Your task to perform on an android device: change text size in settings app Image 0: 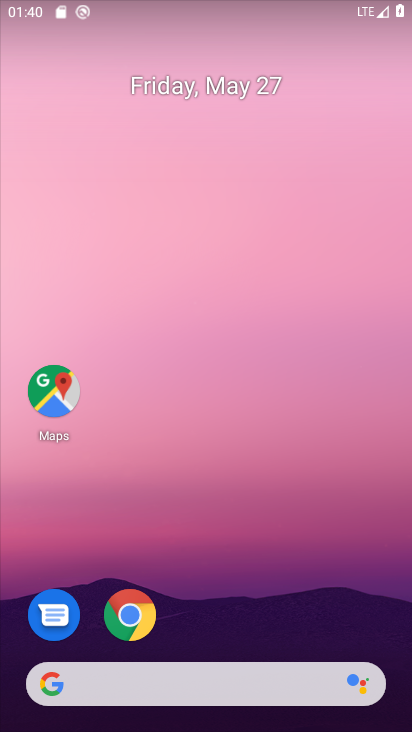
Step 0: drag from (368, 624) to (378, 213)
Your task to perform on an android device: change text size in settings app Image 1: 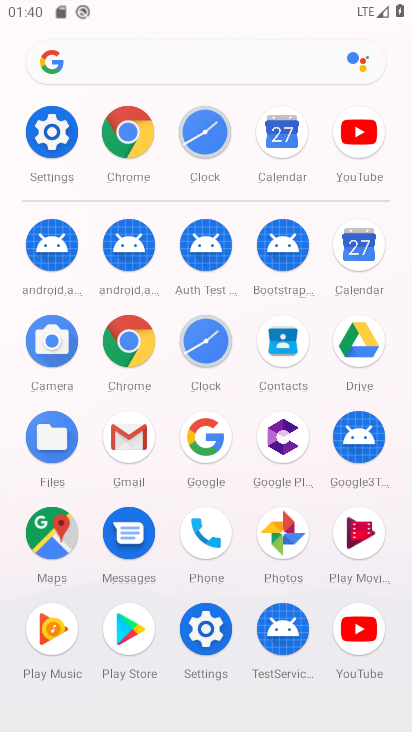
Step 1: click (213, 641)
Your task to perform on an android device: change text size in settings app Image 2: 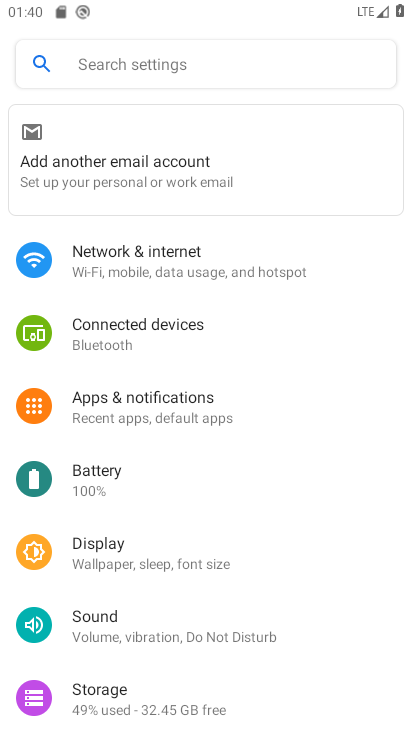
Step 2: drag from (338, 349) to (342, 476)
Your task to perform on an android device: change text size in settings app Image 3: 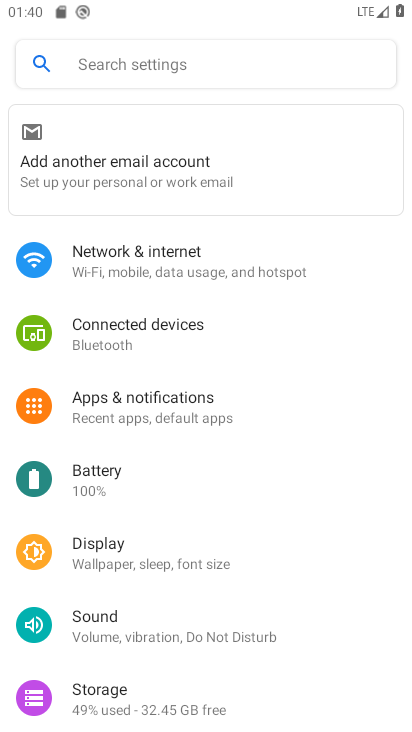
Step 3: drag from (348, 553) to (362, 437)
Your task to perform on an android device: change text size in settings app Image 4: 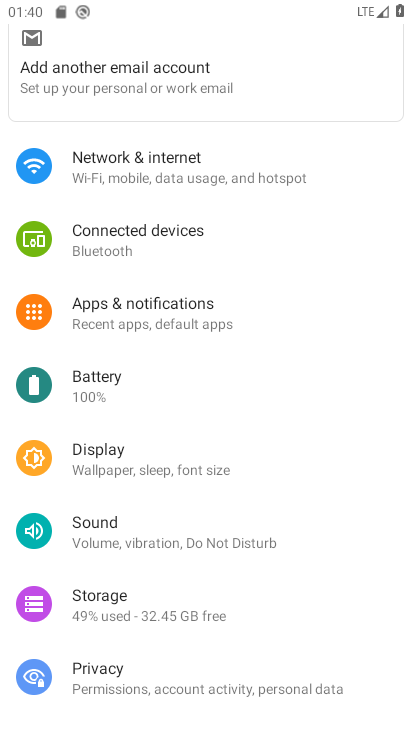
Step 4: drag from (365, 563) to (363, 434)
Your task to perform on an android device: change text size in settings app Image 5: 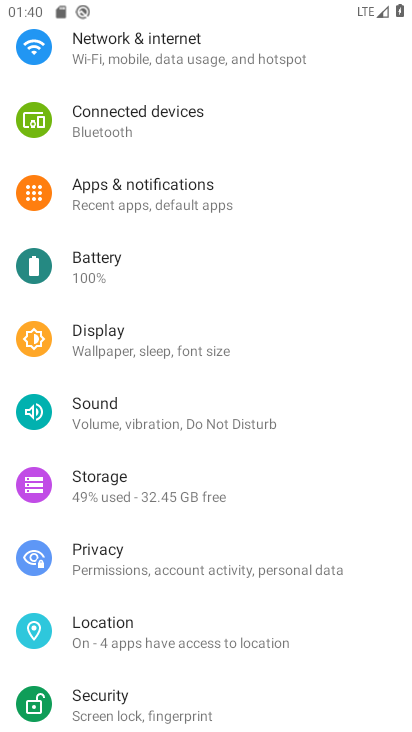
Step 5: drag from (355, 550) to (355, 450)
Your task to perform on an android device: change text size in settings app Image 6: 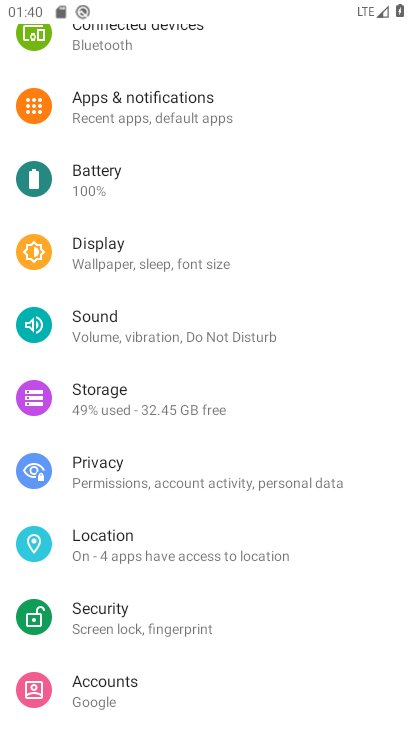
Step 6: drag from (359, 600) to (364, 496)
Your task to perform on an android device: change text size in settings app Image 7: 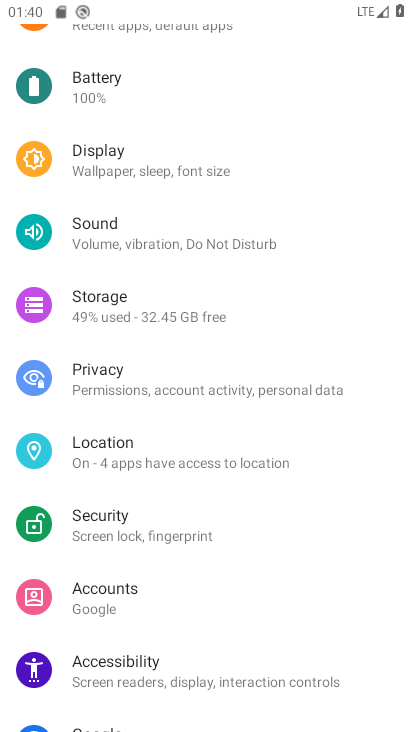
Step 7: drag from (364, 613) to (367, 504)
Your task to perform on an android device: change text size in settings app Image 8: 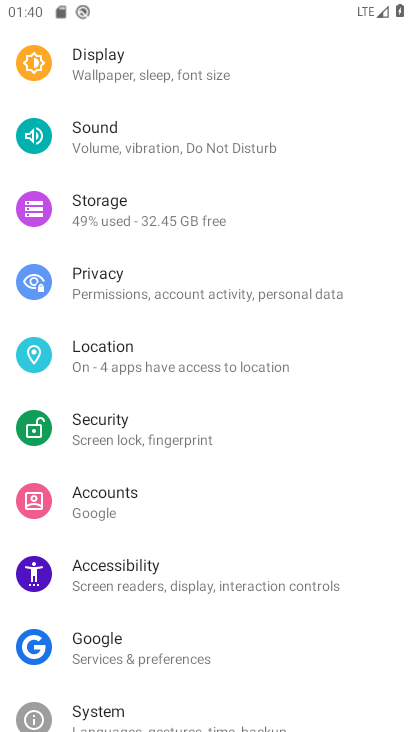
Step 8: drag from (374, 622) to (379, 526)
Your task to perform on an android device: change text size in settings app Image 9: 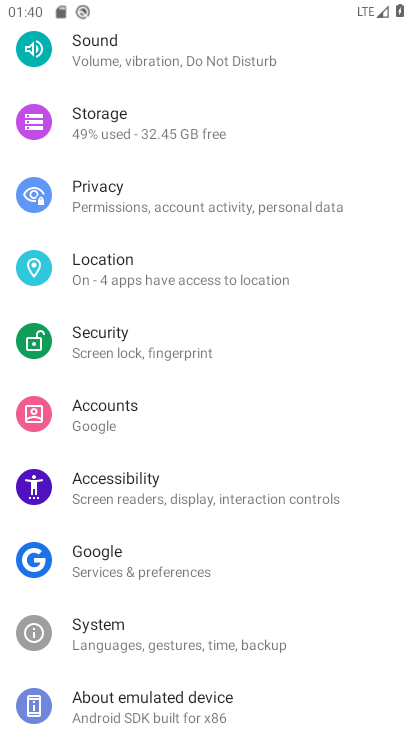
Step 9: drag from (369, 633) to (371, 498)
Your task to perform on an android device: change text size in settings app Image 10: 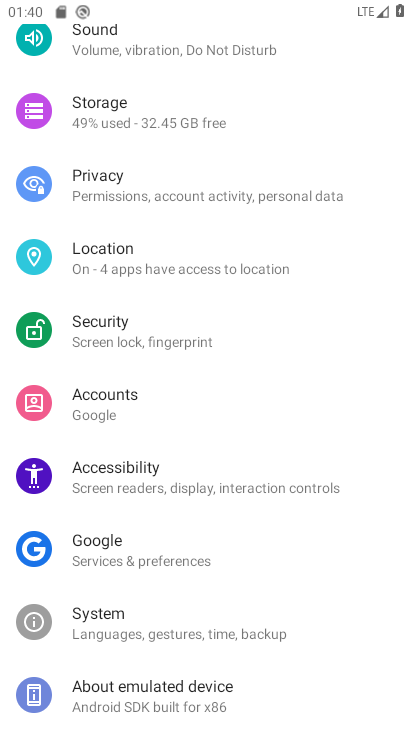
Step 10: drag from (365, 400) to (362, 493)
Your task to perform on an android device: change text size in settings app Image 11: 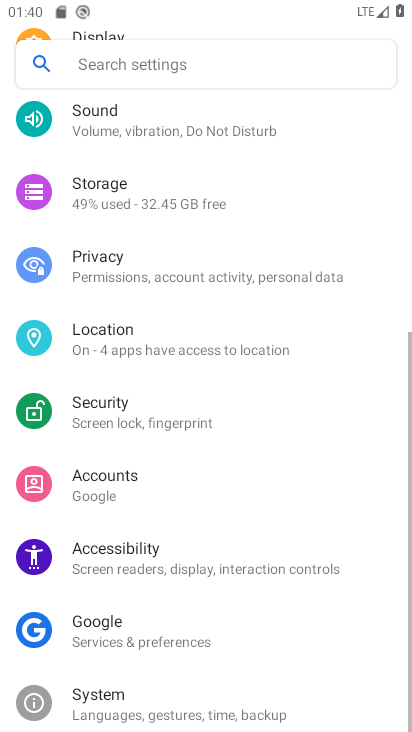
Step 11: drag from (358, 378) to (356, 480)
Your task to perform on an android device: change text size in settings app Image 12: 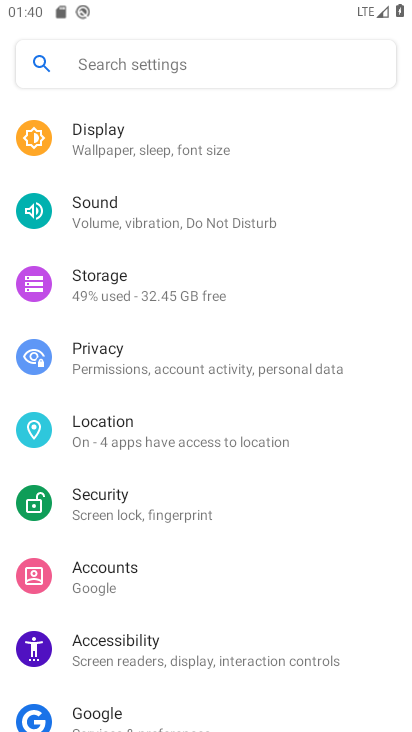
Step 12: drag from (350, 404) to (350, 467)
Your task to perform on an android device: change text size in settings app Image 13: 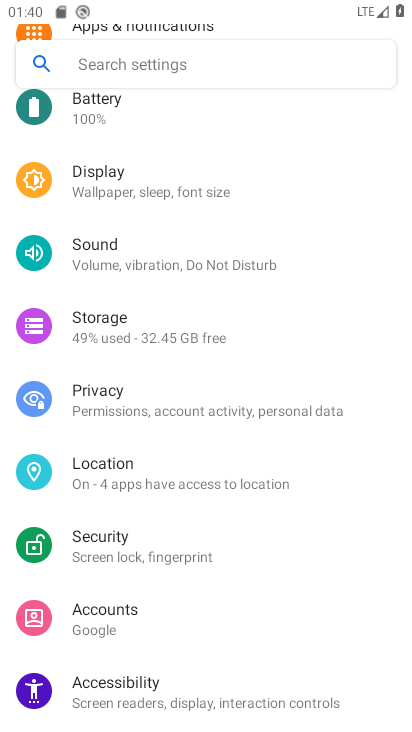
Step 13: drag from (349, 369) to (349, 436)
Your task to perform on an android device: change text size in settings app Image 14: 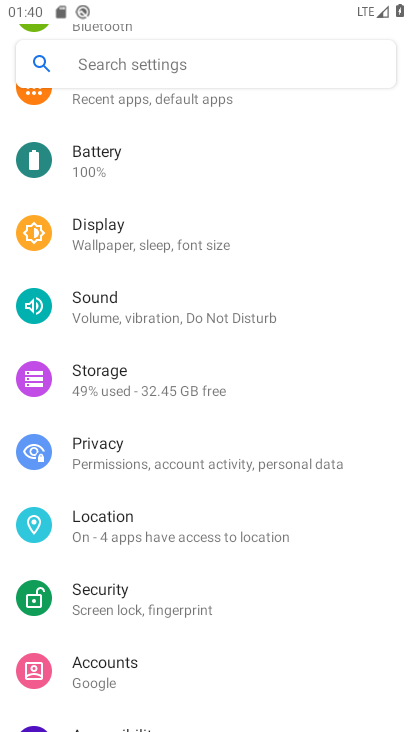
Step 14: drag from (348, 368) to (346, 451)
Your task to perform on an android device: change text size in settings app Image 15: 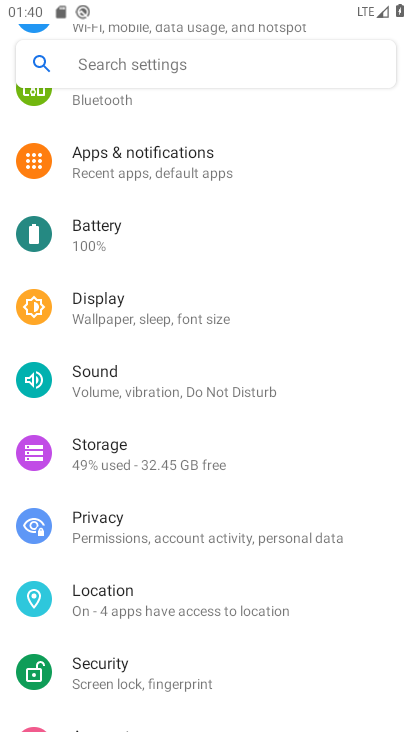
Step 15: drag from (344, 399) to (344, 479)
Your task to perform on an android device: change text size in settings app Image 16: 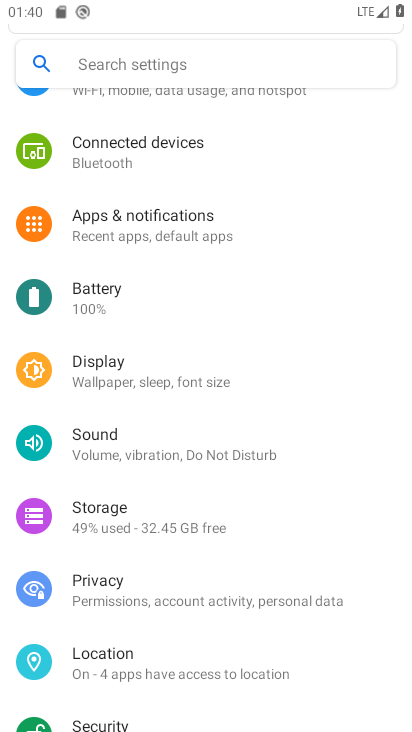
Step 16: drag from (337, 402) to (337, 488)
Your task to perform on an android device: change text size in settings app Image 17: 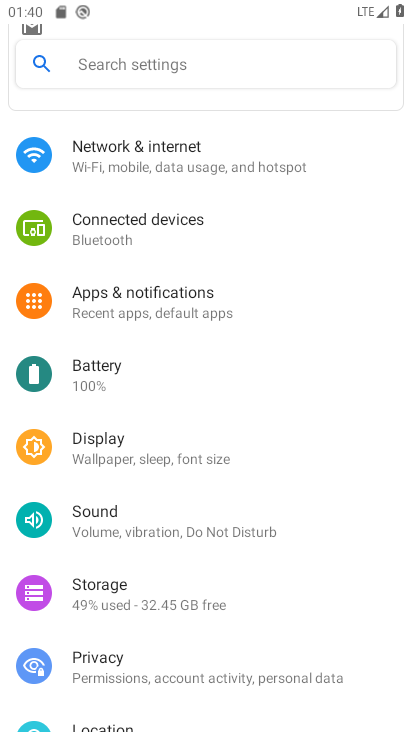
Step 17: click (232, 472)
Your task to perform on an android device: change text size in settings app Image 18: 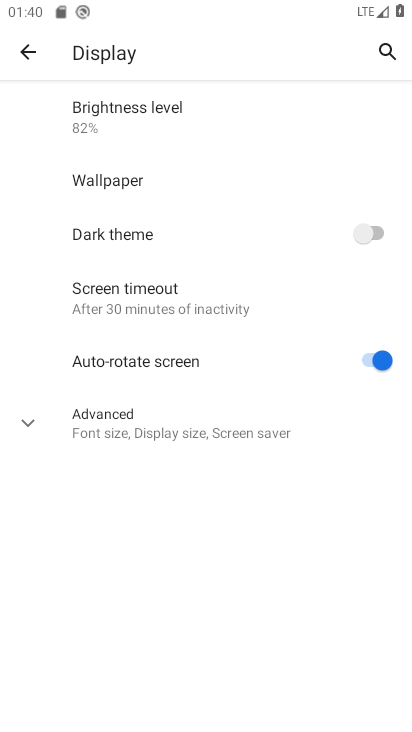
Step 18: click (227, 432)
Your task to perform on an android device: change text size in settings app Image 19: 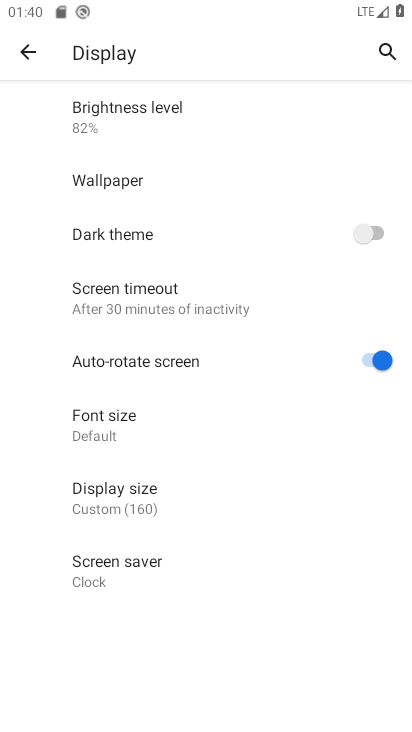
Step 19: click (172, 438)
Your task to perform on an android device: change text size in settings app Image 20: 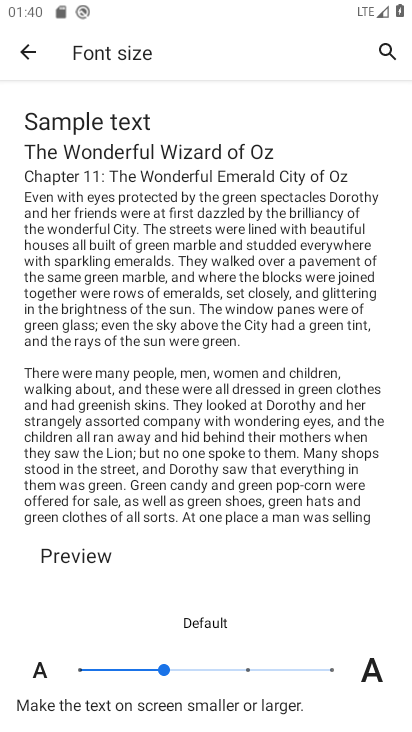
Step 20: click (237, 674)
Your task to perform on an android device: change text size in settings app Image 21: 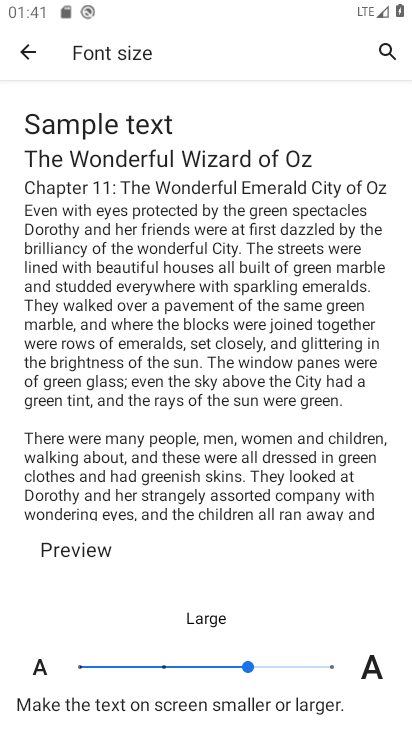
Step 21: task complete